Your task to perform on an android device: toggle notification dots Image 0: 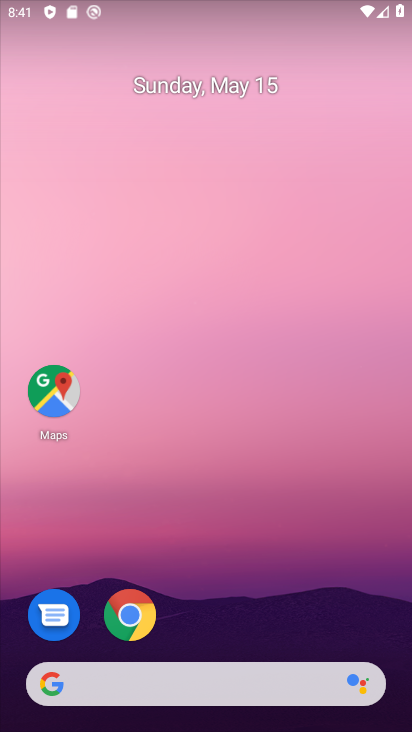
Step 0: drag from (250, 567) to (234, 38)
Your task to perform on an android device: toggle notification dots Image 1: 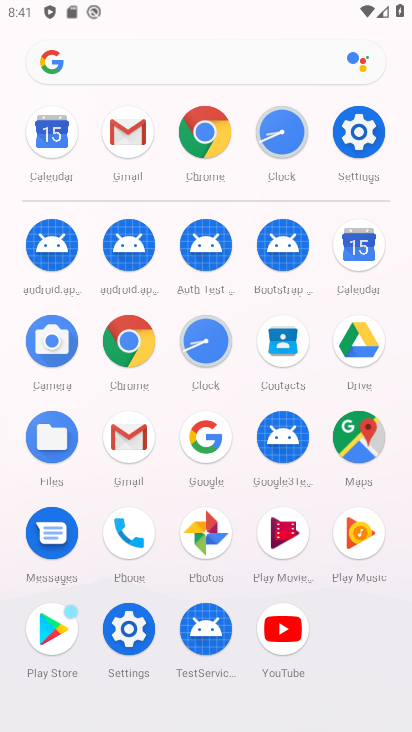
Step 1: drag from (12, 578) to (1, 335)
Your task to perform on an android device: toggle notification dots Image 2: 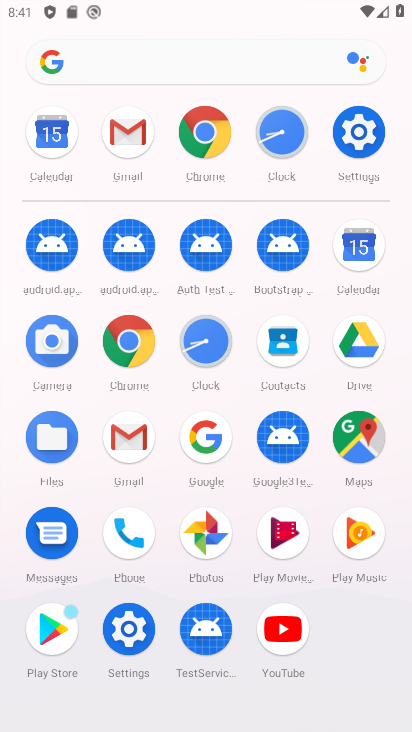
Step 2: click (125, 626)
Your task to perform on an android device: toggle notification dots Image 3: 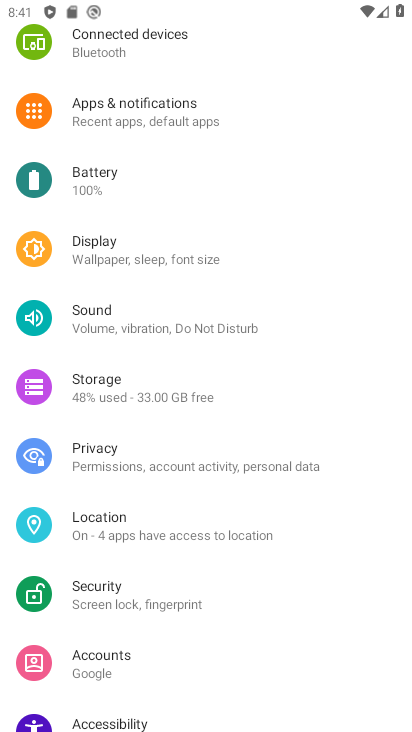
Step 3: drag from (229, 148) to (249, 499)
Your task to perform on an android device: toggle notification dots Image 4: 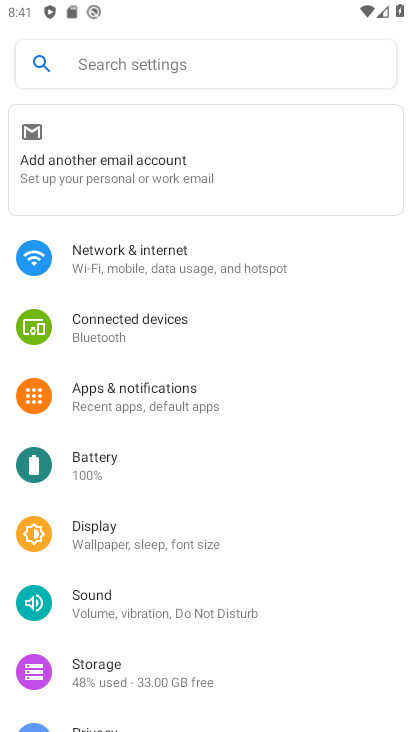
Step 4: drag from (260, 527) to (256, 238)
Your task to perform on an android device: toggle notification dots Image 5: 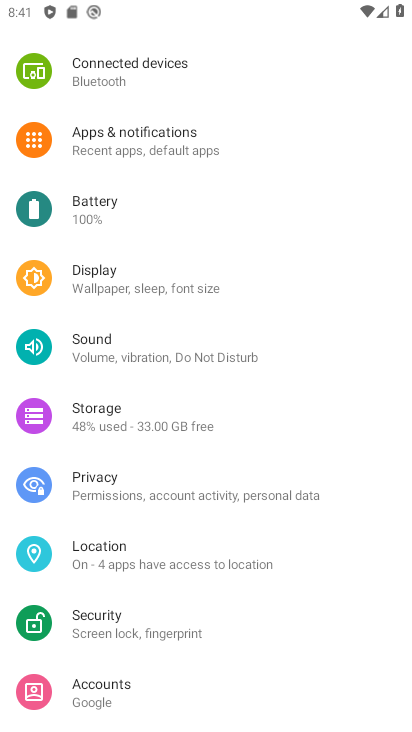
Step 5: drag from (208, 596) to (229, 199)
Your task to perform on an android device: toggle notification dots Image 6: 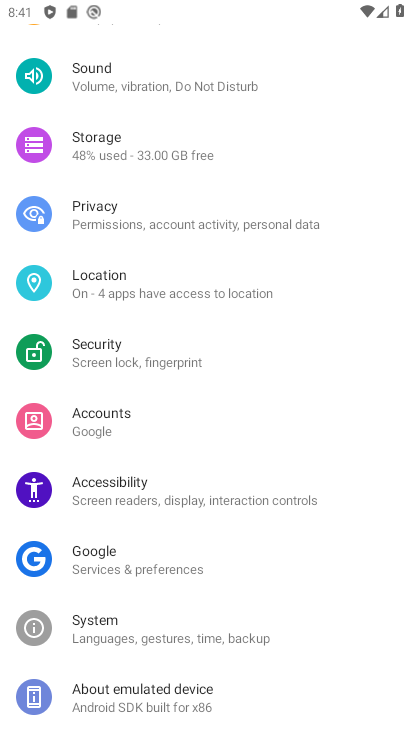
Step 6: drag from (215, 578) to (212, 159)
Your task to perform on an android device: toggle notification dots Image 7: 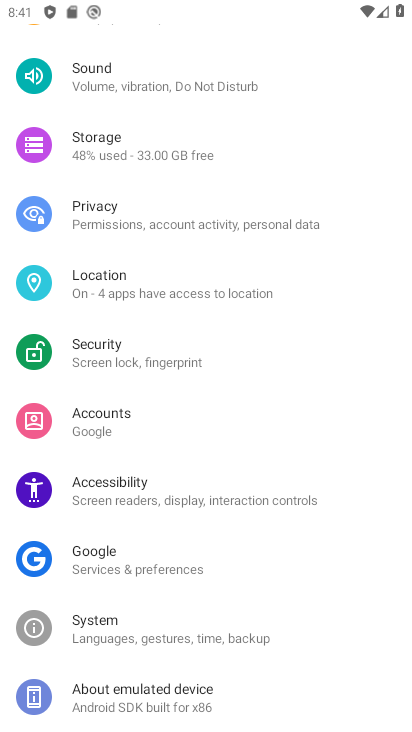
Step 7: drag from (217, 193) to (223, 652)
Your task to perform on an android device: toggle notification dots Image 8: 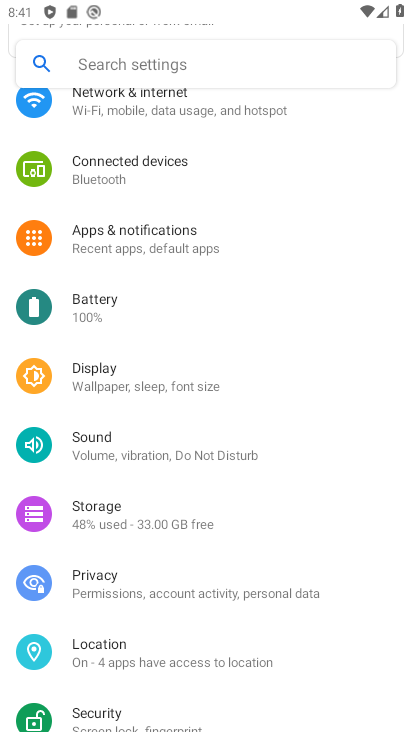
Step 8: click (161, 236)
Your task to perform on an android device: toggle notification dots Image 9: 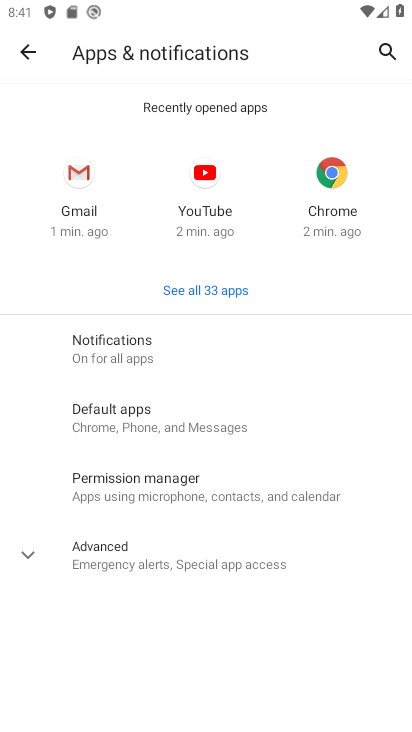
Step 9: click (143, 356)
Your task to perform on an android device: toggle notification dots Image 10: 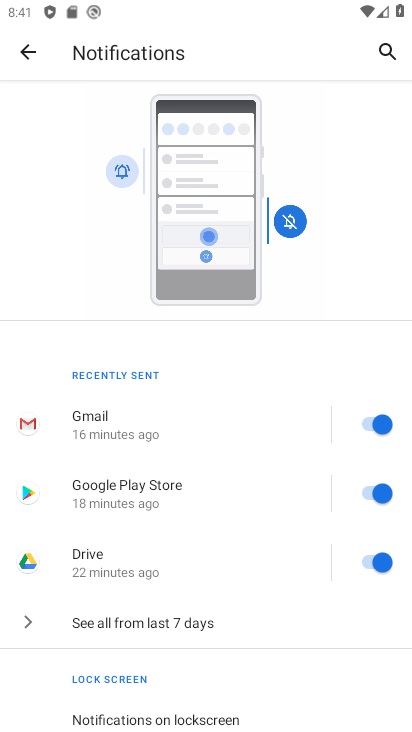
Step 10: drag from (251, 594) to (285, 158)
Your task to perform on an android device: toggle notification dots Image 11: 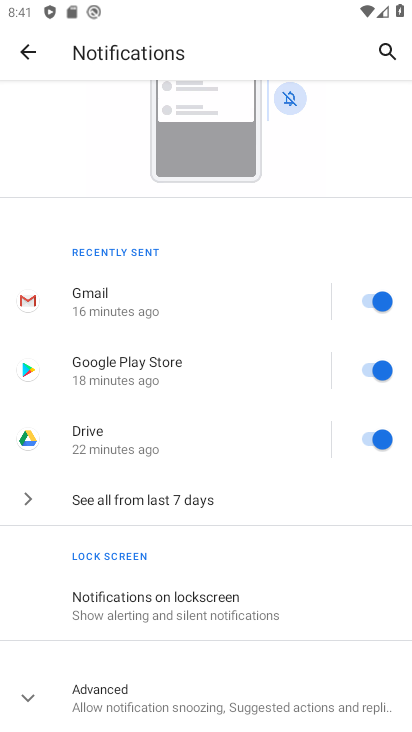
Step 11: click (164, 706)
Your task to perform on an android device: toggle notification dots Image 12: 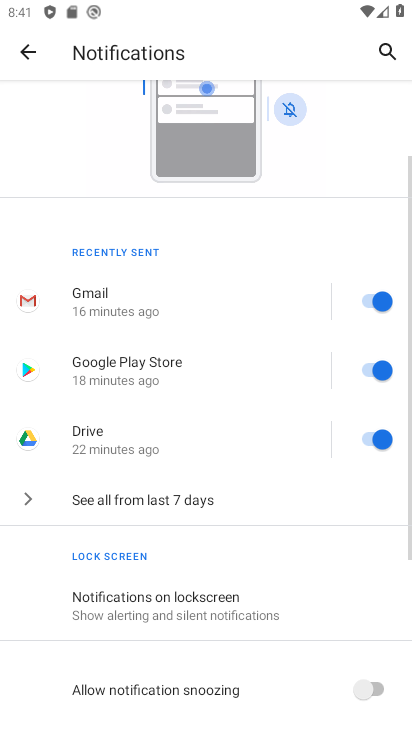
Step 12: drag from (231, 663) to (262, 268)
Your task to perform on an android device: toggle notification dots Image 13: 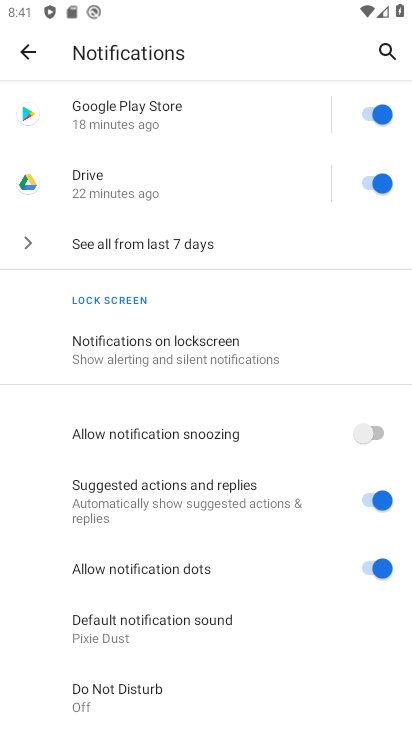
Step 13: click (380, 563)
Your task to perform on an android device: toggle notification dots Image 14: 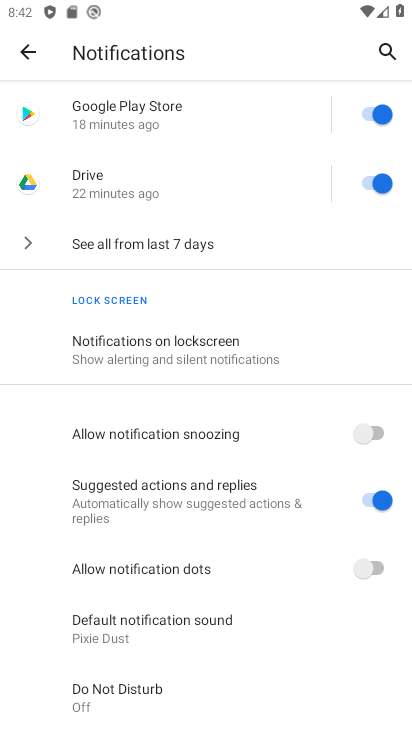
Step 14: task complete